Your task to perform on an android device: Google the capital of Chile Image 0: 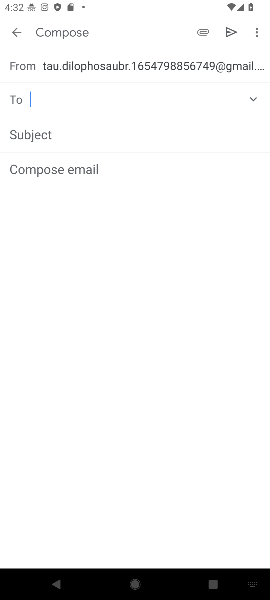
Step 0: press home button
Your task to perform on an android device: Google the capital of Chile Image 1: 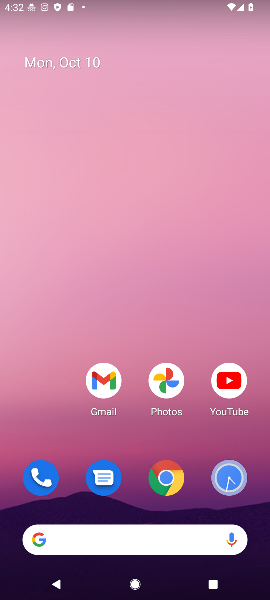
Step 1: click (167, 487)
Your task to perform on an android device: Google the capital of Chile Image 2: 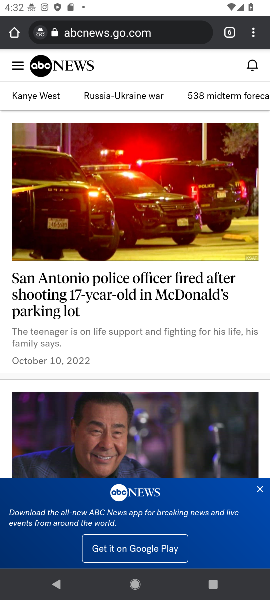
Step 2: click (87, 31)
Your task to perform on an android device: Google the capital of Chile Image 3: 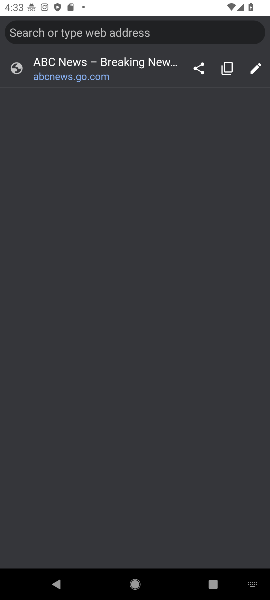
Step 3: type "Google the capital of Chile"
Your task to perform on an android device: Google the capital of Chile Image 4: 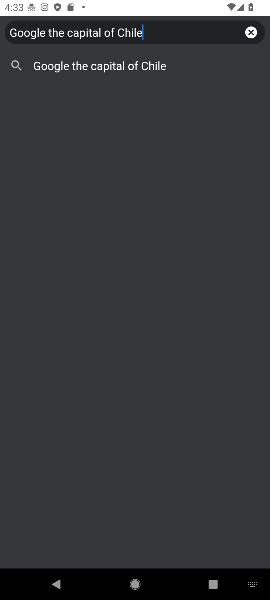
Step 4: click (156, 65)
Your task to perform on an android device: Google the capital of Chile Image 5: 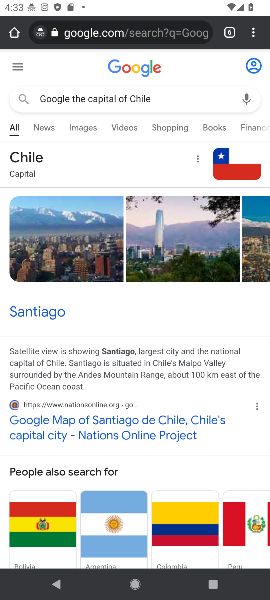
Step 5: task complete